Your task to perform on an android device: change the clock style Image 0: 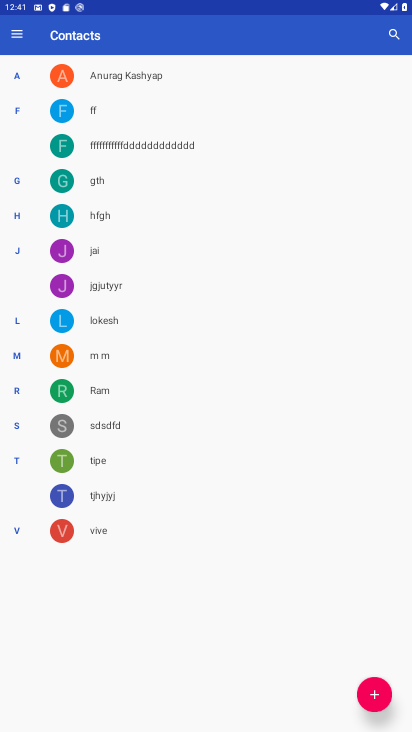
Step 0: press home button
Your task to perform on an android device: change the clock style Image 1: 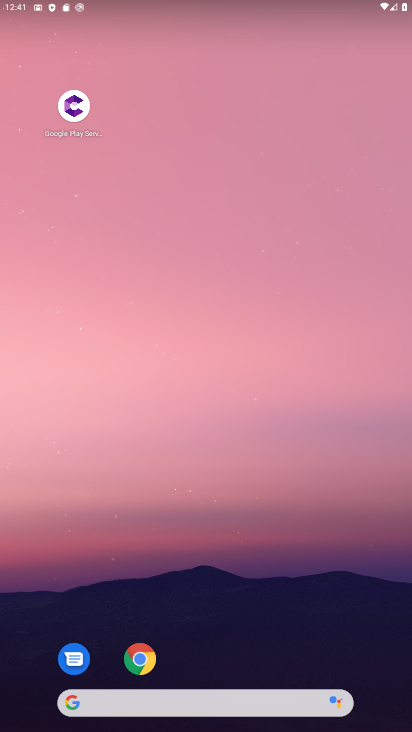
Step 1: drag from (236, 665) to (219, 127)
Your task to perform on an android device: change the clock style Image 2: 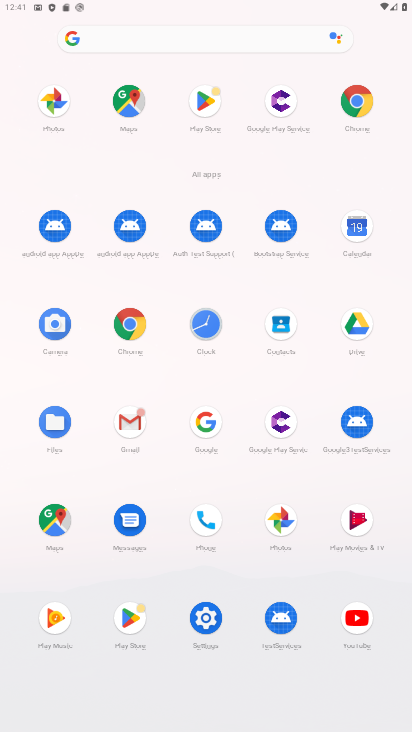
Step 2: click (217, 338)
Your task to perform on an android device: change the clock style Image 3: 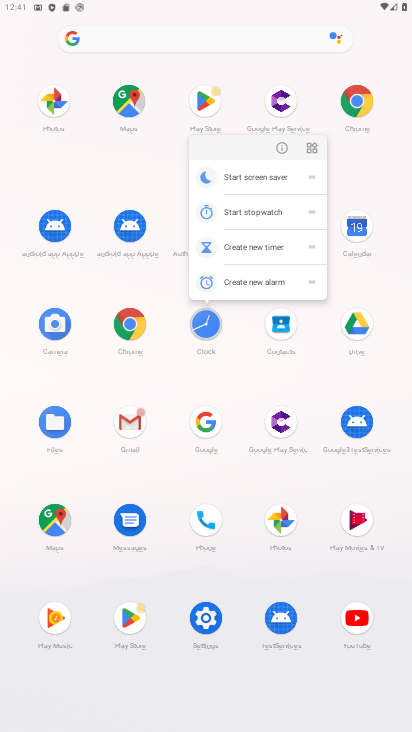
Step 3: click (217, 338)
Your task to perform on an android device: change the clock style Image 4: 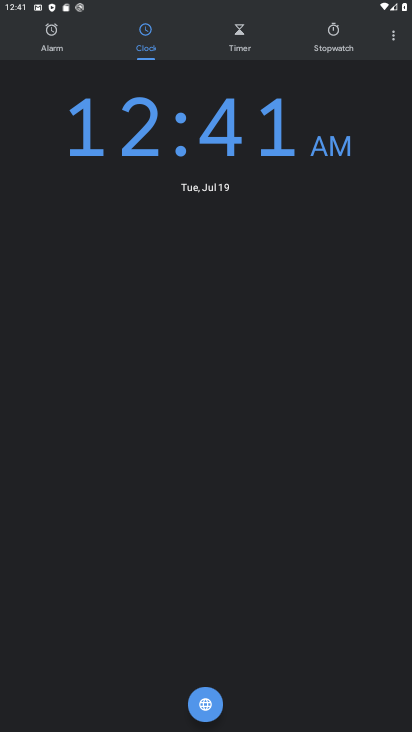
Step 4: click (384, 32)
Your task to perform on an android device: change the clock style Image 5: 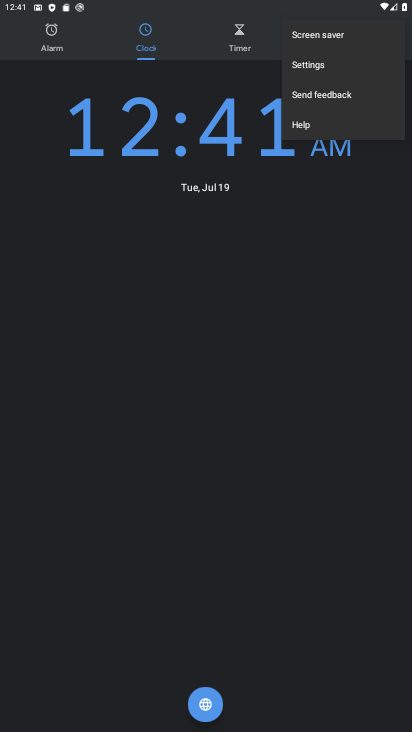
Step 5: click (319, 75)
Your task to perform on an android device: change the clock style Image 6: 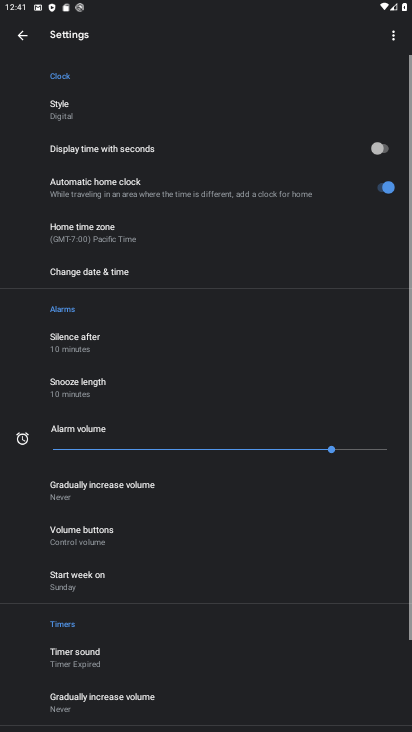
Step 6: click (66, 117)
Your task to perform on an android device: change the clock style Image 7: 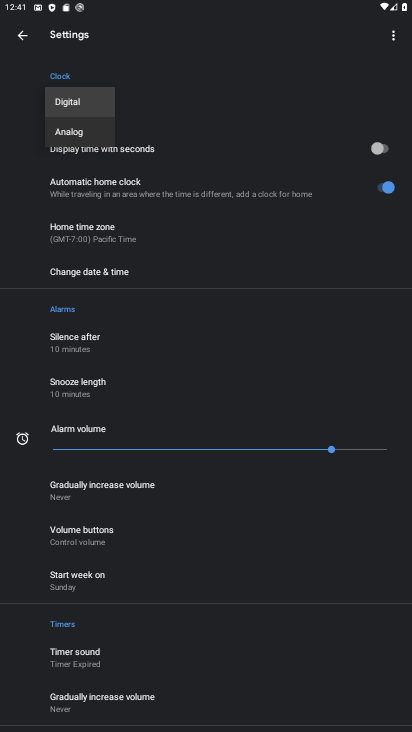
Step 7: click (86, 134)
Your task to perform on an android device: change the clock style Image 8: 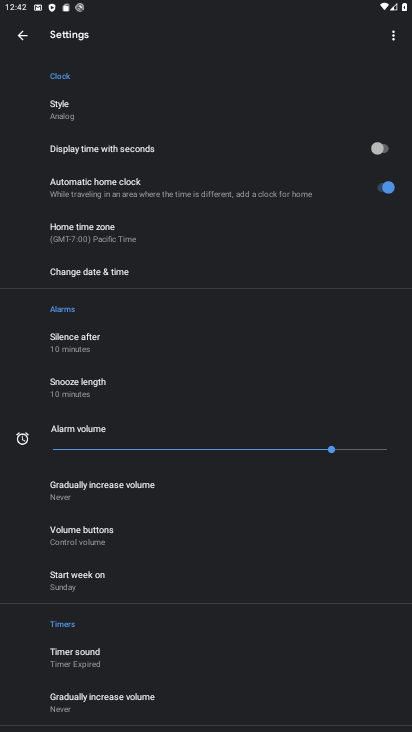
Step 8: task complete